Your task to perform on an android device: Open display settings Image 0: 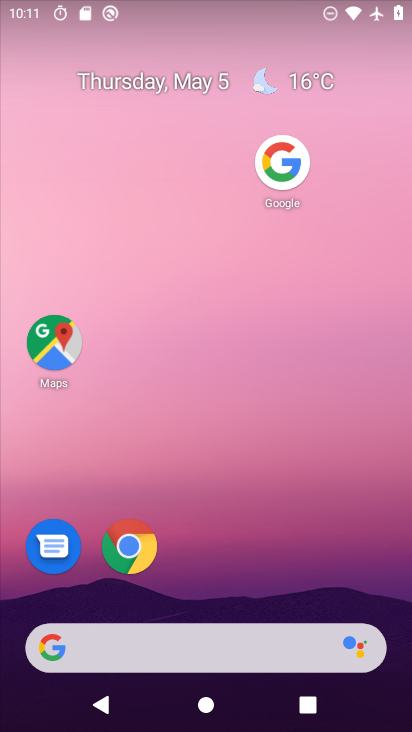
Step 0: drag from (169, 639) to (335, 74)
Your task to perform on an android device: Open display settings Image 1: 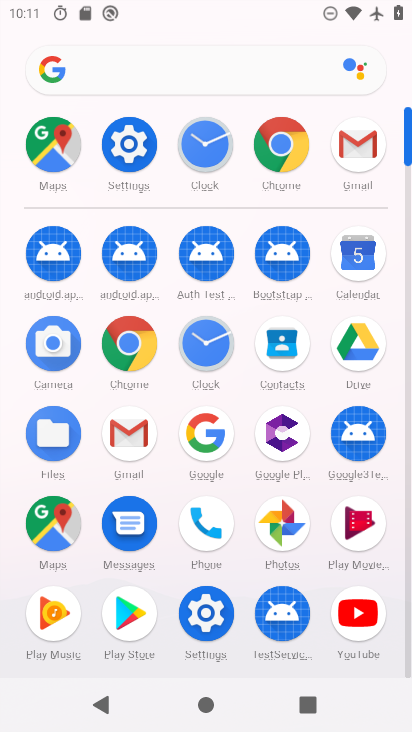
Step 1: click (119, 149)
Your task to perform on an android device: Open display settings Image 2: 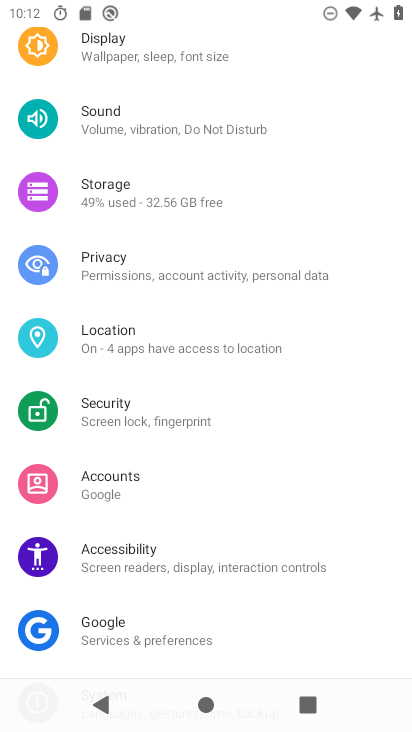
Step 2: click (167, 46)
Your task to perform on an android device: Open display settings Image 3: 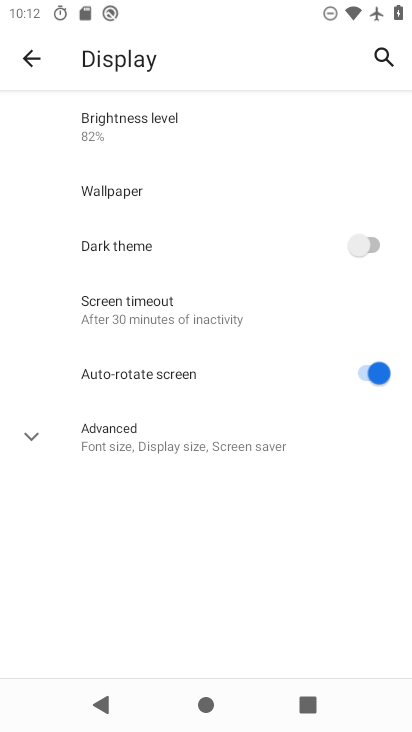
Step 3: task complete